Your task to perform on an android device: Open Google Image 0: 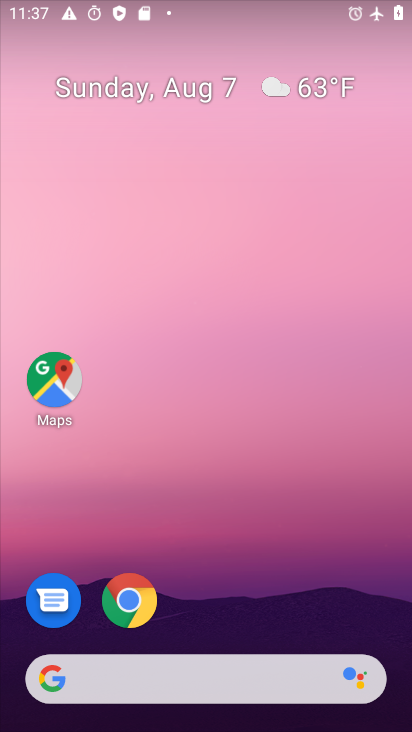
Step 0: drag from (213, 451) to (223, 148)
Your task to perform on an android device: Open Google Image 1: 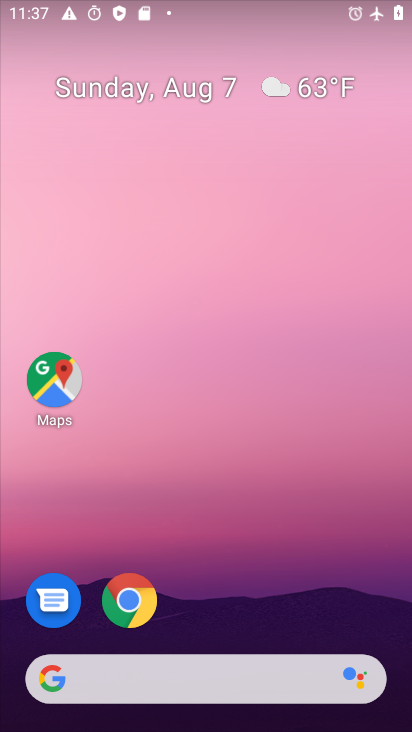
Step 1: drag from (180, 663) to (247, 175)
Your task to perform on an android device: Open Google Image 2: 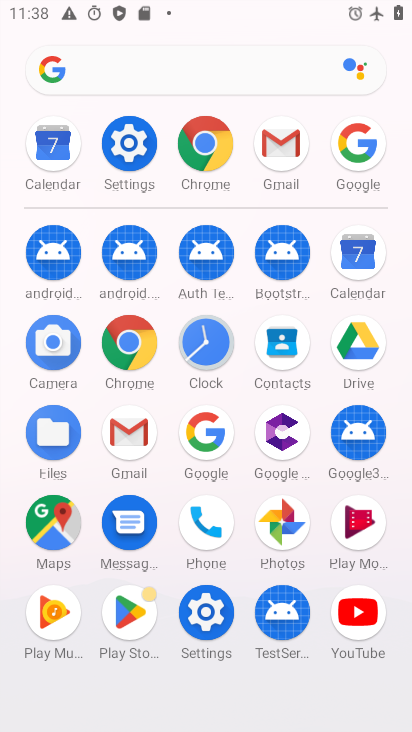
Step 2: click (225, 449)
Your task to perform on an android device: Open Google Image 3: 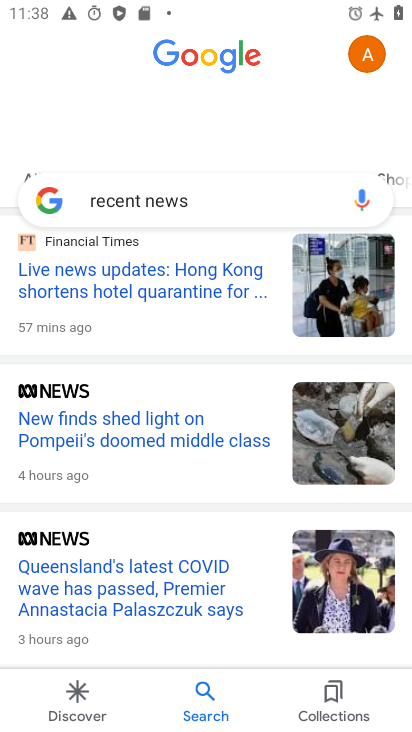
Step 3: task complete